Your task to perform on an android device: Go to CNN.com Image 0: 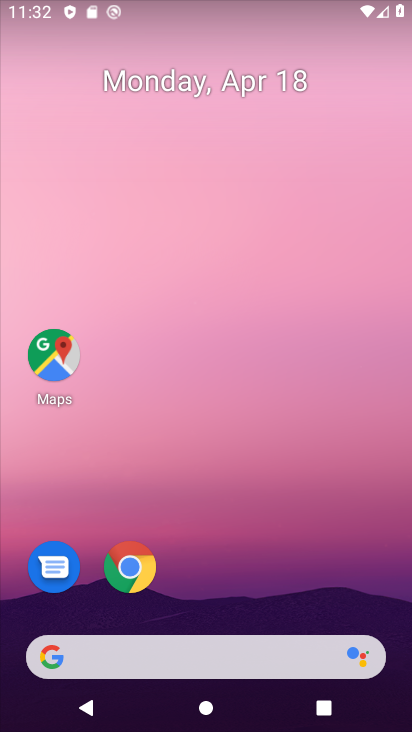
Step 0: click (127, 566)
Your task to perform on an android device: Go to CNN.com Image 1: 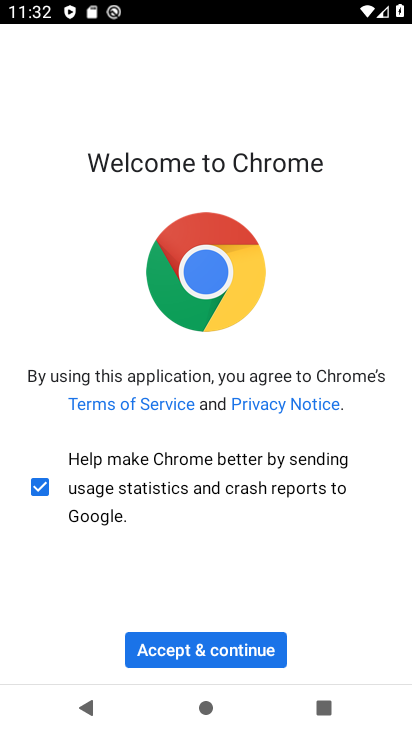
Step 1: click (192, 638)
Your task to perform on an android device: Go to CNN.com Image 2: 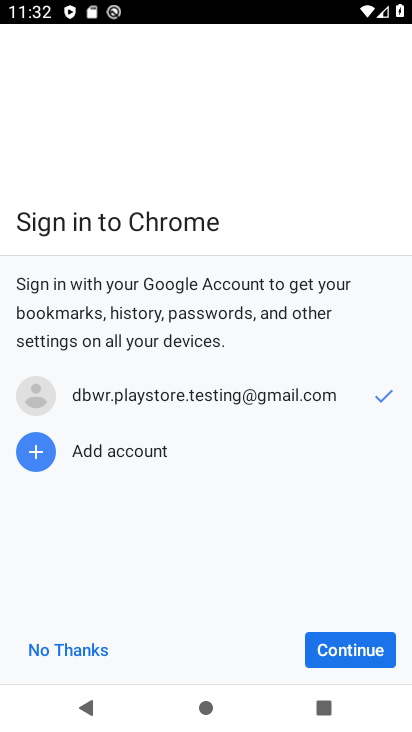
Step 2: click (340, 648)
Your task to perform on an android device: Go to CNN.com Image 3: 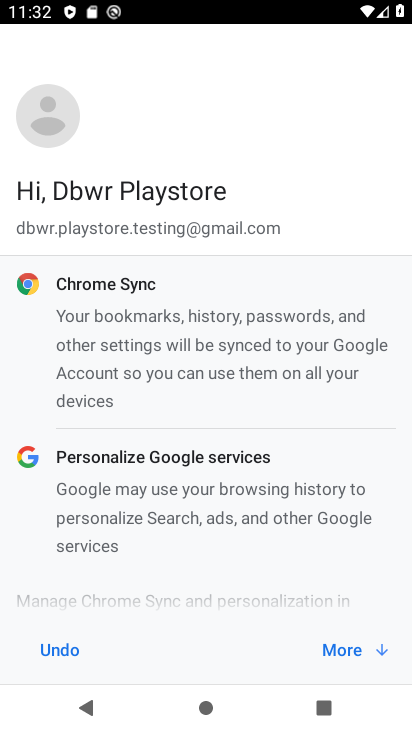
Step 3: click (340, 648)
Your task to perform on an android device: Go to CNN.com Image 4: 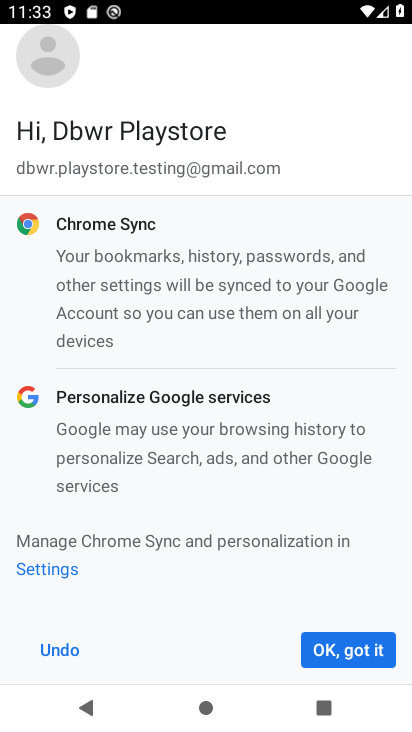
Step 4: click (340, 648)
Your task to perform on an android device: Go to CNN.com Image 5: 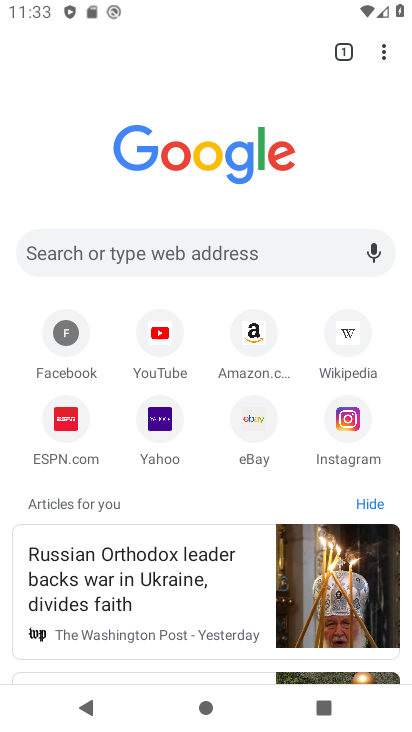
Step 5: click (117, 257)
Your task to perform on an android device: Go to CNN.com Image 6: 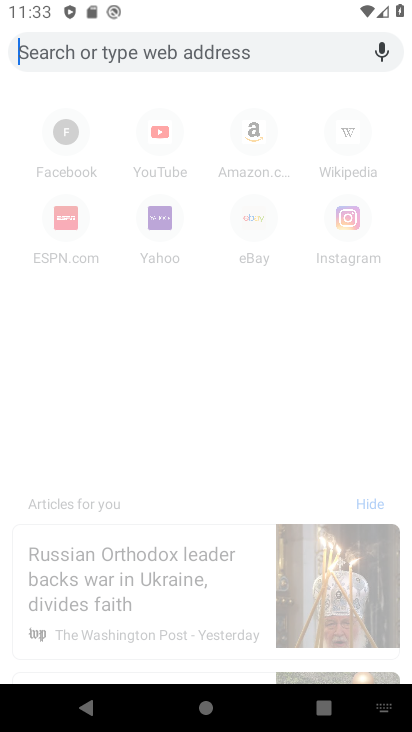
Step 6: type "cnn.com"
Your task to perform on an android device: Go to CNN.com Image 7: 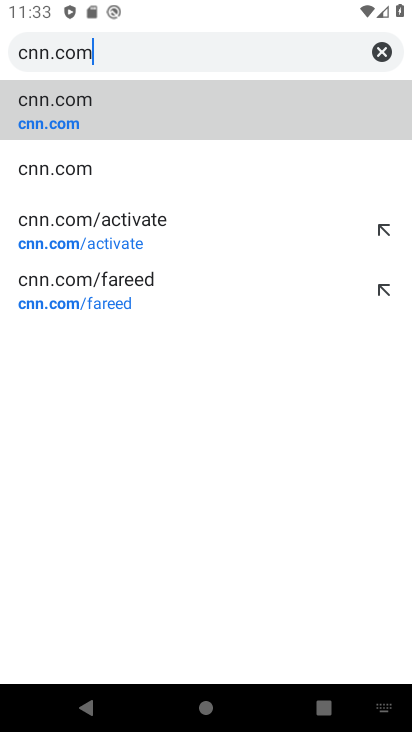
Step 7: click (47, 105)
Your task to perform on an android device: Go to CNN.com Image 8: 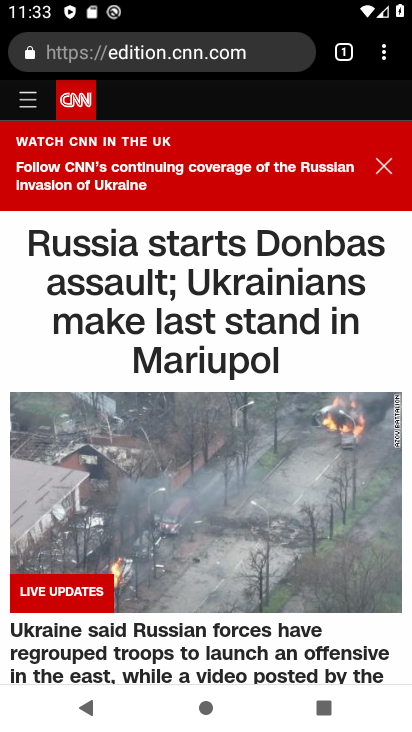
Step 8: task complete